Your task to perform on an android device: find which apps use the phone's location Image 0: 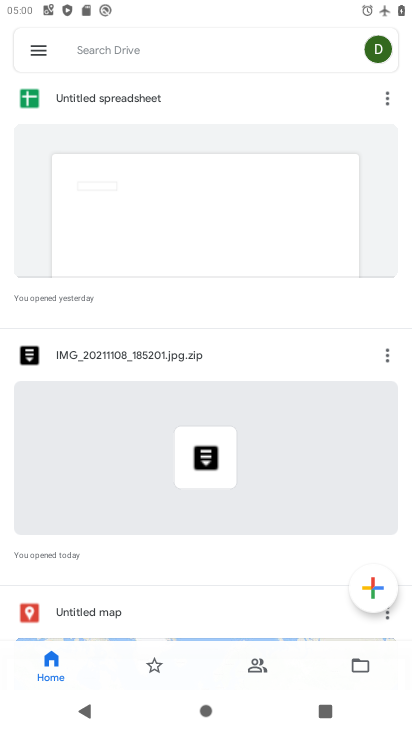
Step 0: press back button
Your task to perform on an android device: find which apps use the phone's location Image 1: 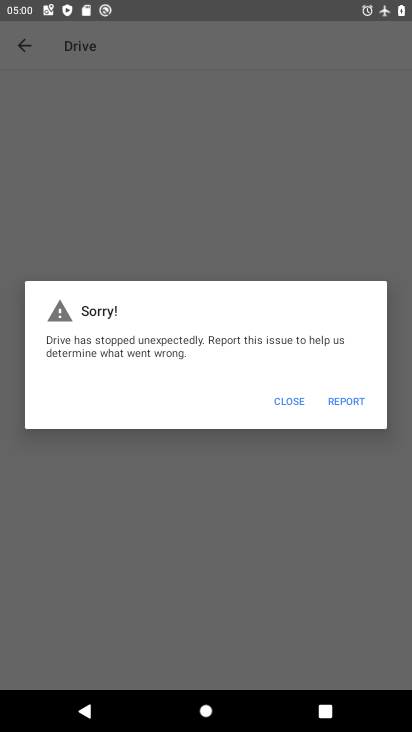
Step 1: press back button
Your task to perform on an android device: find which apps use the phone's location Image 2: 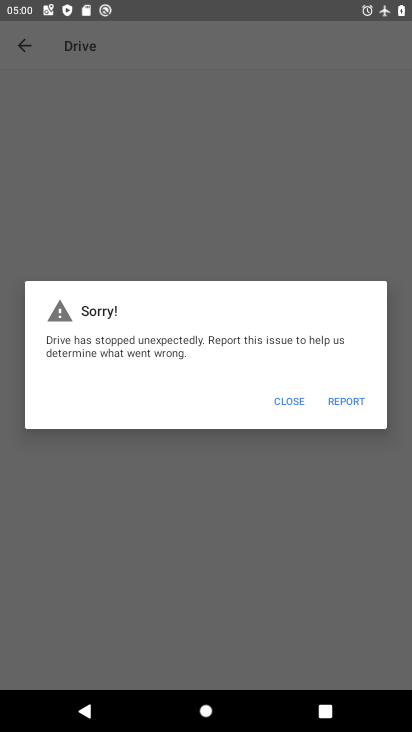
Step 2: press home button
Your task to perform on an android device: find which apps use the phone's location Image 3: 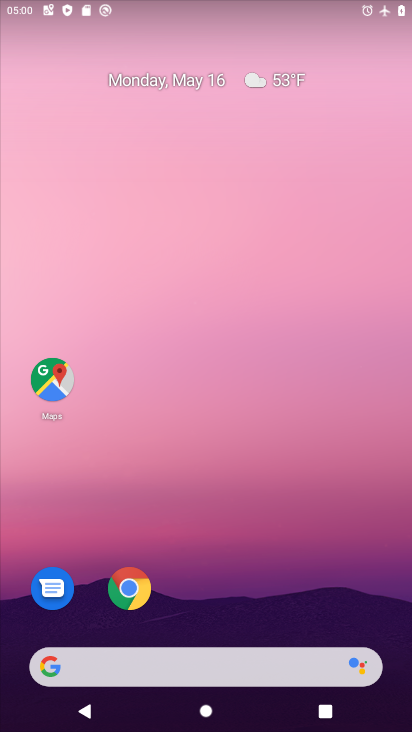
Step 3: drag from (238, 543) to (267, 0)
Your task to perform on an android device: find which apps use the phone's location Image 4: 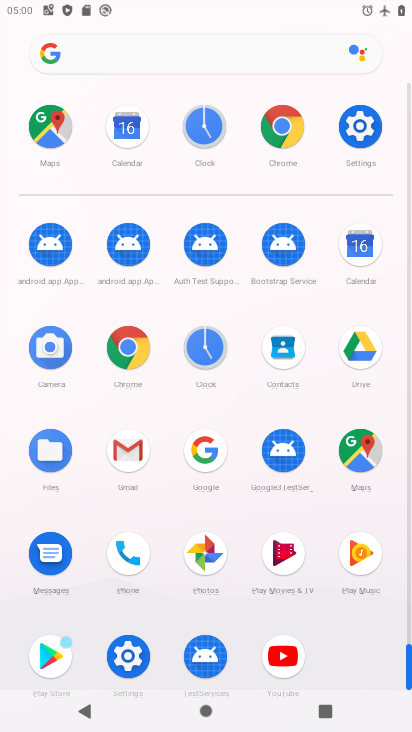
Step 4: click (127, 658)
Your task to perform on an android device: find which apps use the phone's location Image 5: 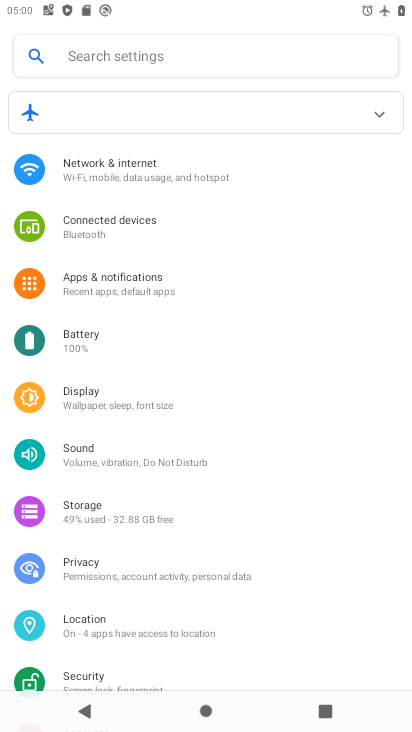
Step 5: drag from (177, 620) to (219, 176)
Your task to perform on an android device: find which apps use the phone's location Image 6: 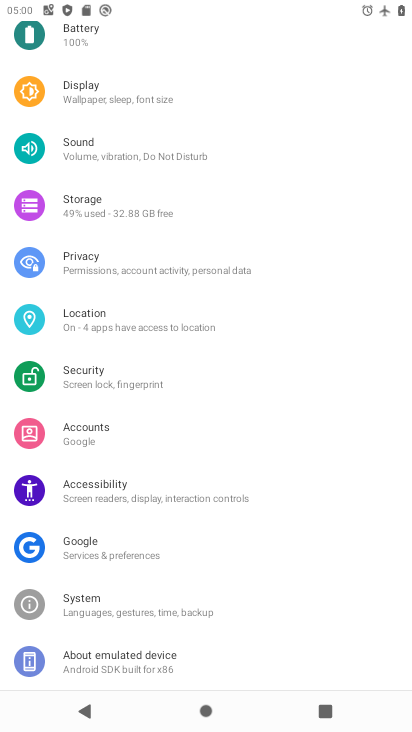
Step 6: click (115, 331)
Your task to perform on an android device: find which apps use the phone's location Image 7: 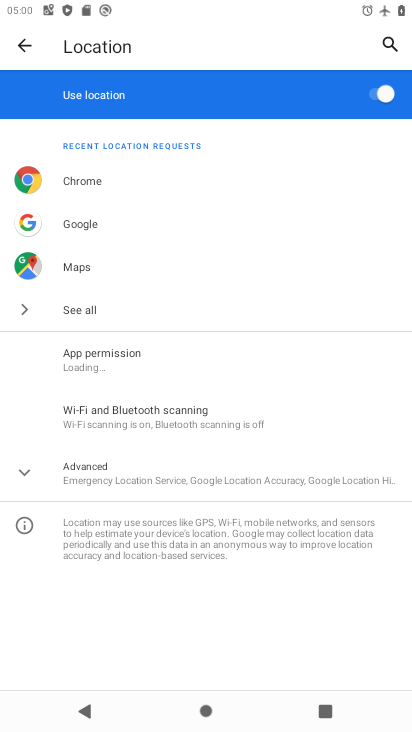
Step 7: click (58, 471)
Your task to perform on an android device: find which apps use the phone's location Image 8: 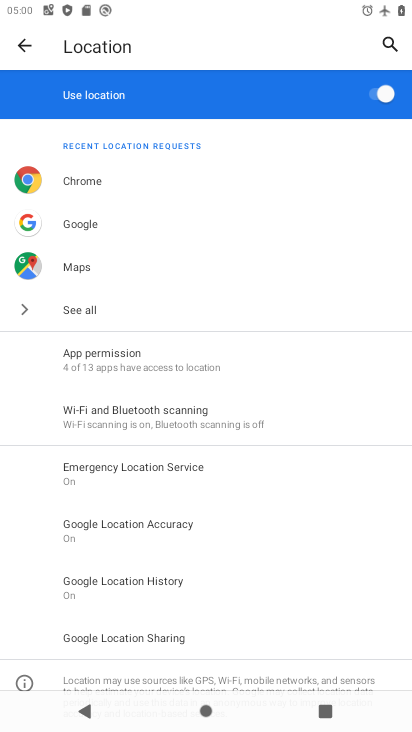
Step 8: click (103, 367)
Your task to perform on an android device: find which apps use the phone's location Image 9: 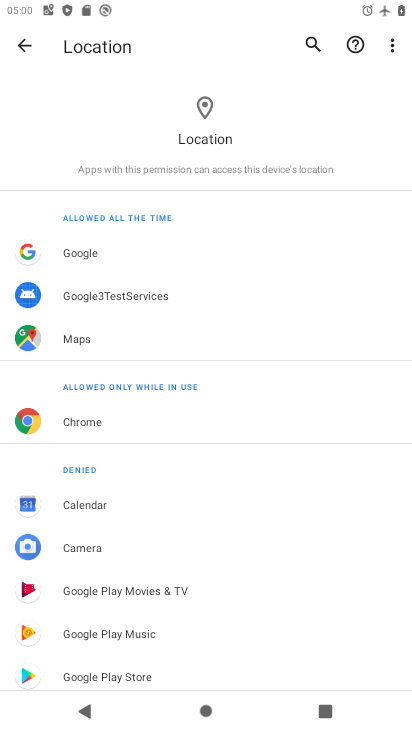
Step 9: task complete